Your task to perform on an android device: clear all cookies in the chrome app Image 0: 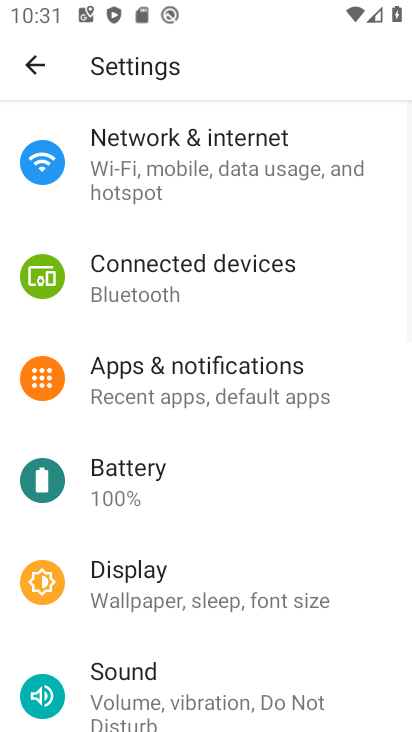
Step 0: press home button
Your task to perform on an android device: clear all cookies in the chrome app Image 1: 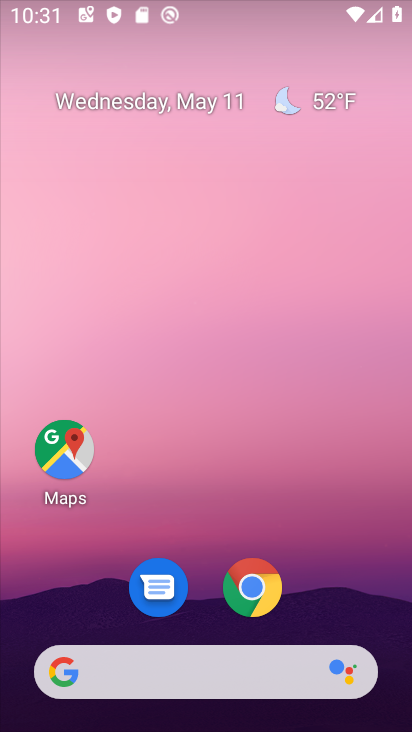
Step 1: drag from (242, 689) to (290, 274)
Your task to perform on an android device: clear all cookies in the chrome app Image 2: 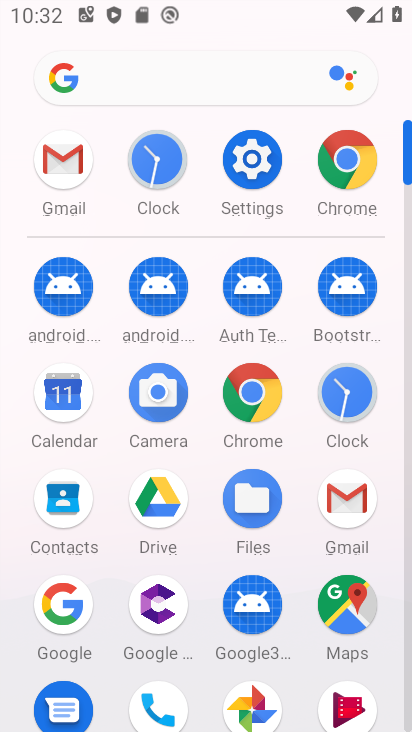
Step 2: click (331, 162)
Your task to perform on an android device: clear all cookies in the chrome app Image 3: 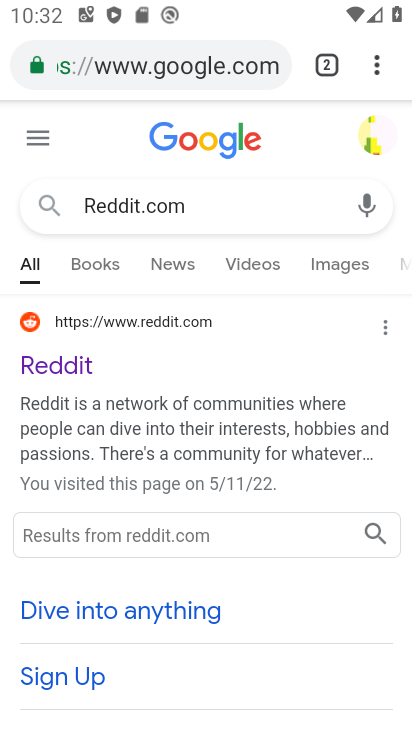
Step 3: click (364, 69)
Your task to perform on an android device: clear all cookies in the chrome app Image 4: 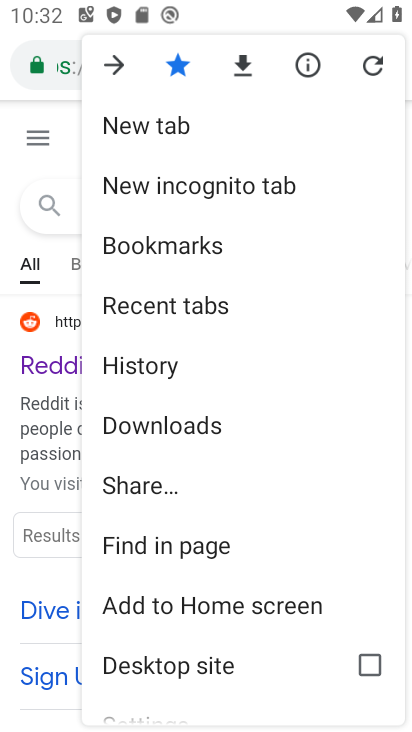
Step 4: click (156, 374)
Your task to perform on an android device: clear all cookies in the chrome app Image 5: 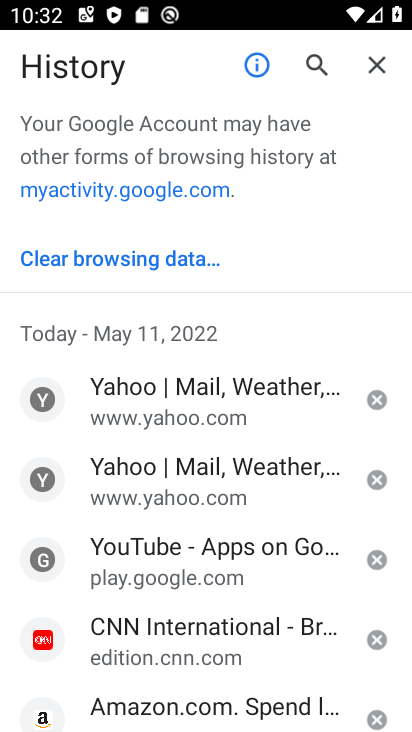
Step 5: click (101, 265)
Your task to perform on an android device: clear all cookies in the chrome app Image 6: 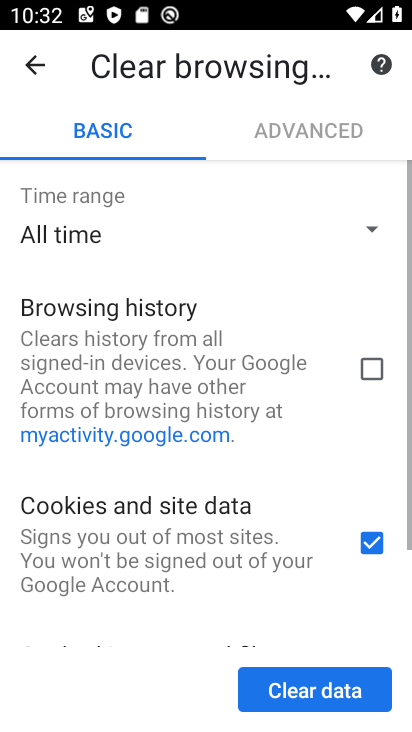
Step 6: click (307, 684)
Your task to perform on an android device: clear all cookies in the chrome app Image 7: 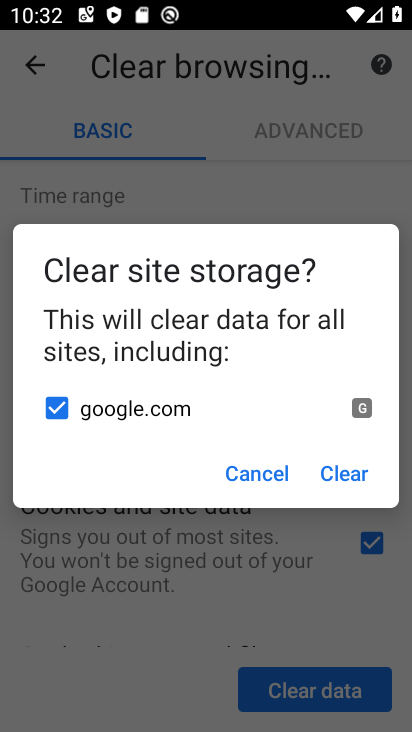
Step 7: task complete